Your task to perform on an android device: Open Google Chrome and click the shortcut for Amazon.com Image 0: 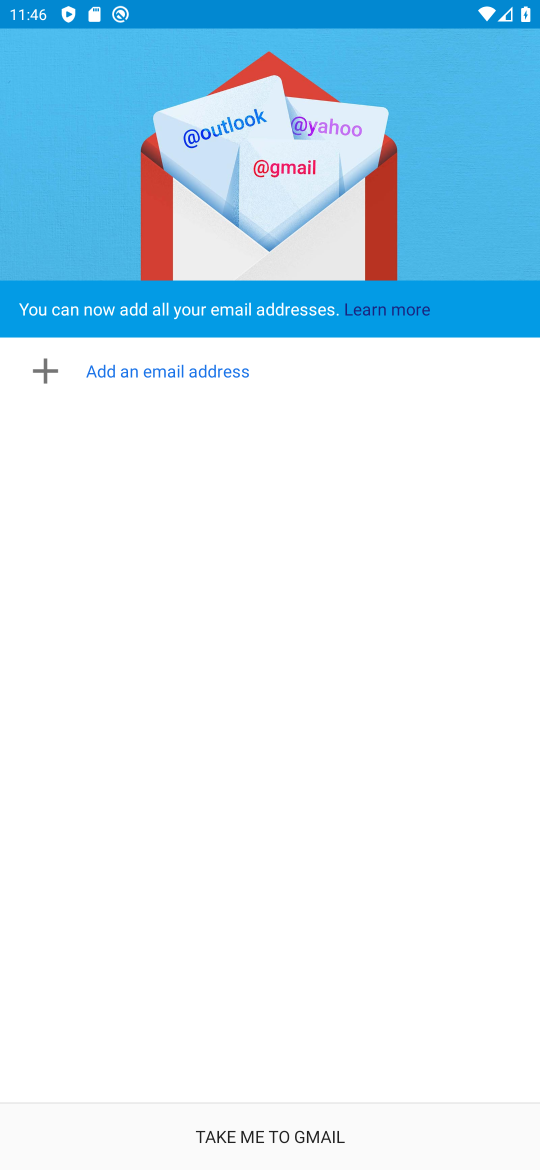
Step 0: press home button
Your task to perform on an android device: Open Google Chrome and click the shortcut for Amazon.com Image 1: 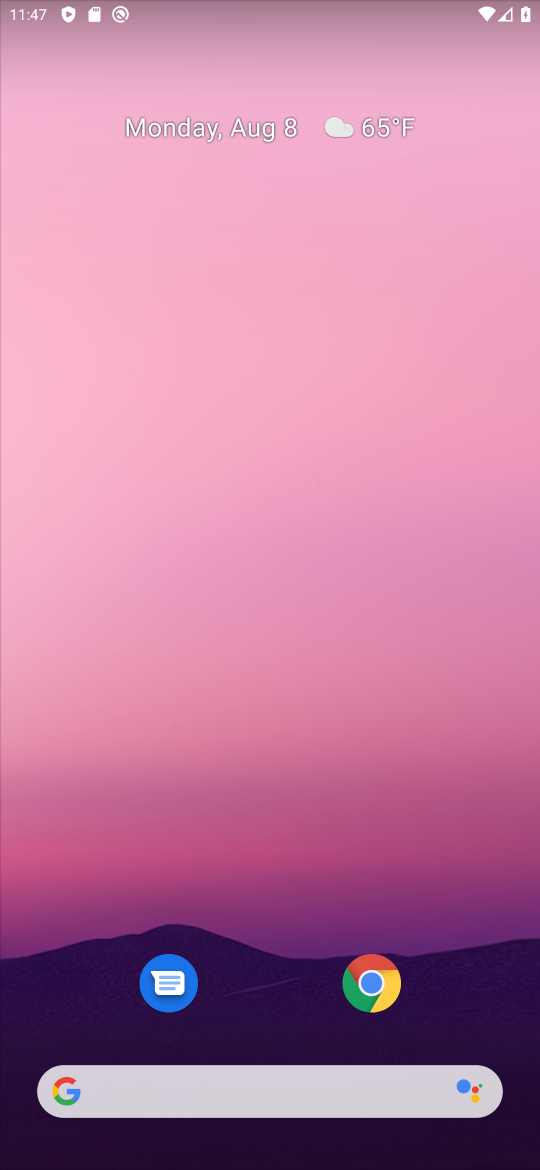
Step 1: click (366, 963)
Your task to perform on an android device: Open Google Chrome and click the shortcut for Amazon.com Image 2: 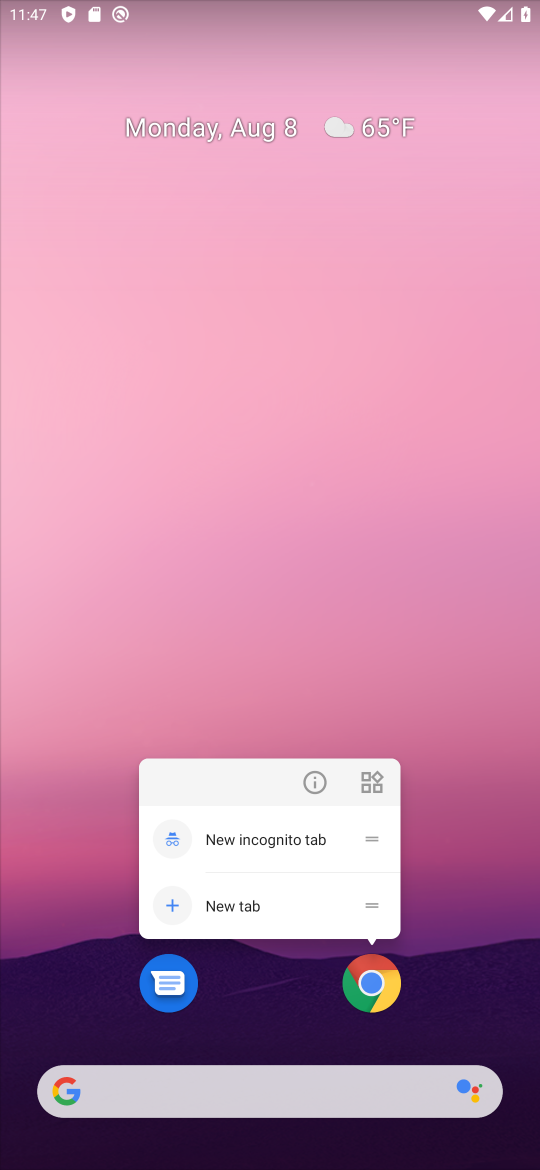
Step 2: click (366, 963)
Your task to perform on an android device: Open Google Chrome and click the shortcut for Amazon.com Image 3: 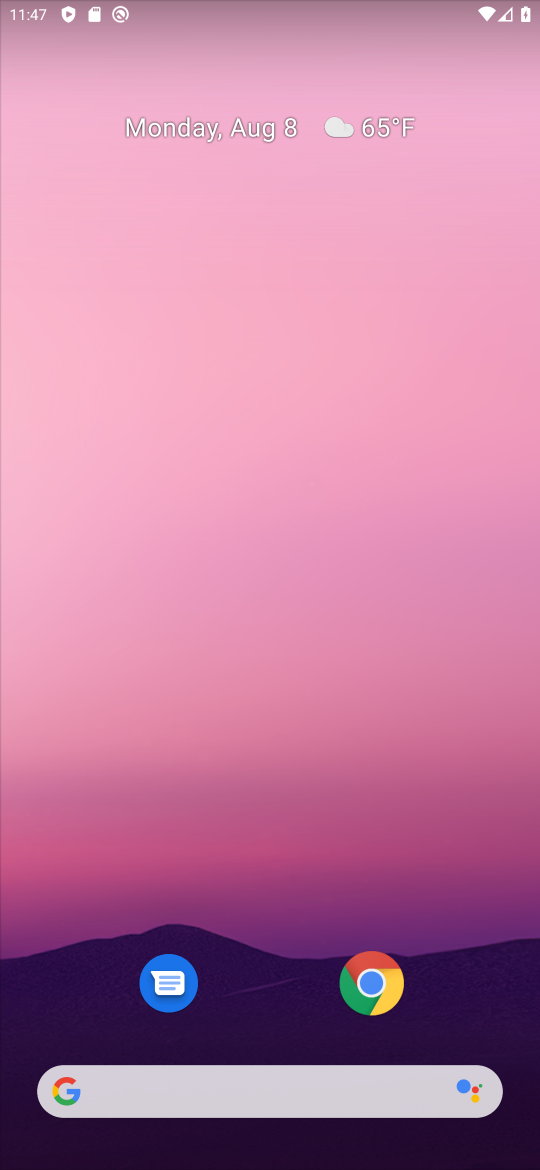
Step 3: click (366, 990)
Your task to perform on an android device: Open Google Chrome and click the shortcut for Amazon.com Image 4: 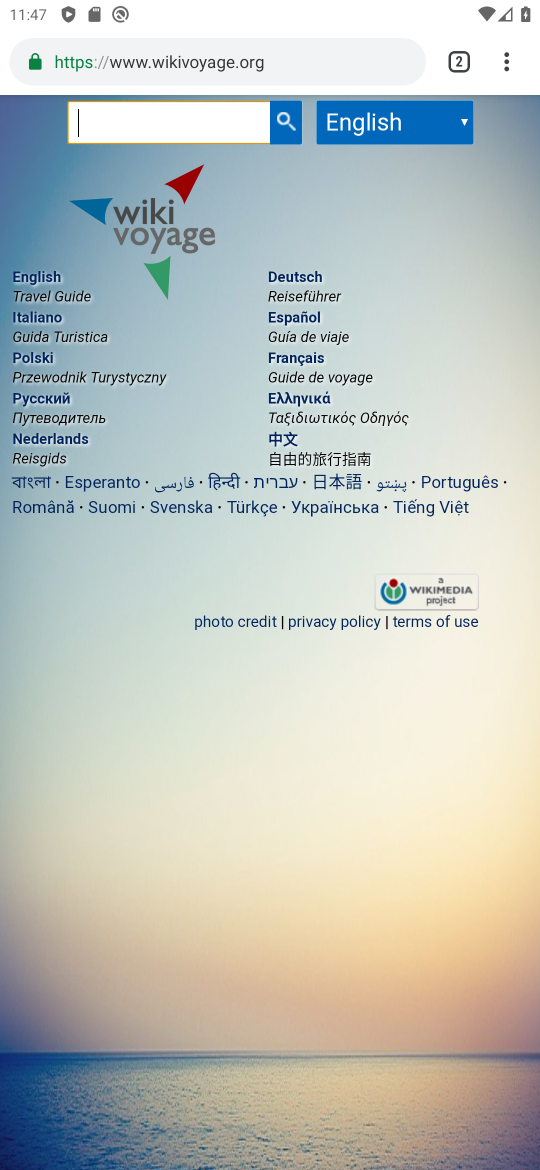
Step 4: click (501, 66)
Your task to perform on an android device: Open Google Chrome and click the shortcut for Amazon.com Image 5: 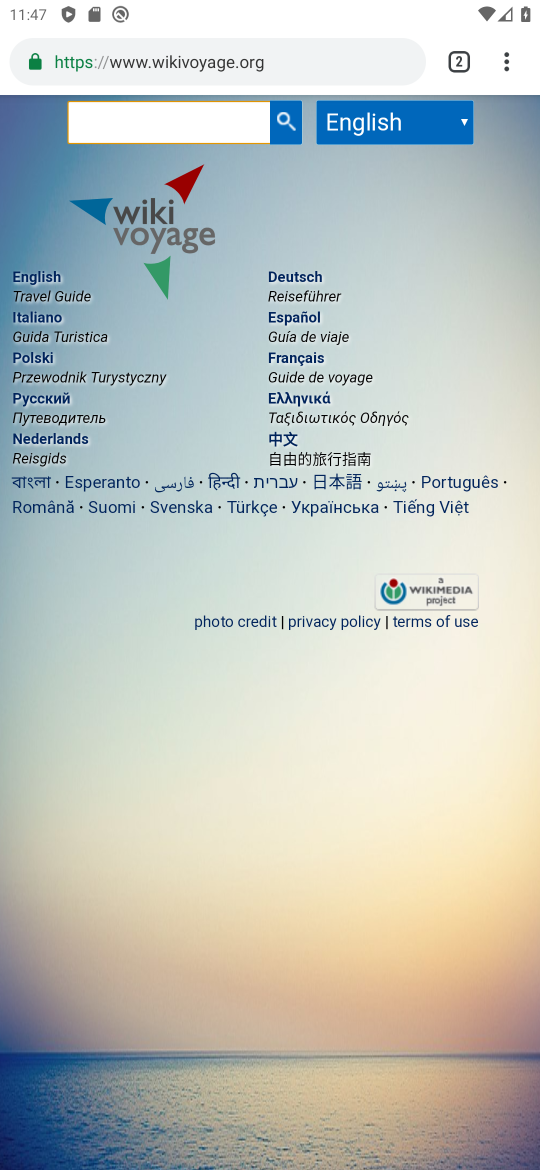
Step 5: click (455, 54)
Your task to perform on an android device: Open Google Chrome and click the shortcut for Amazon.com Image 6: 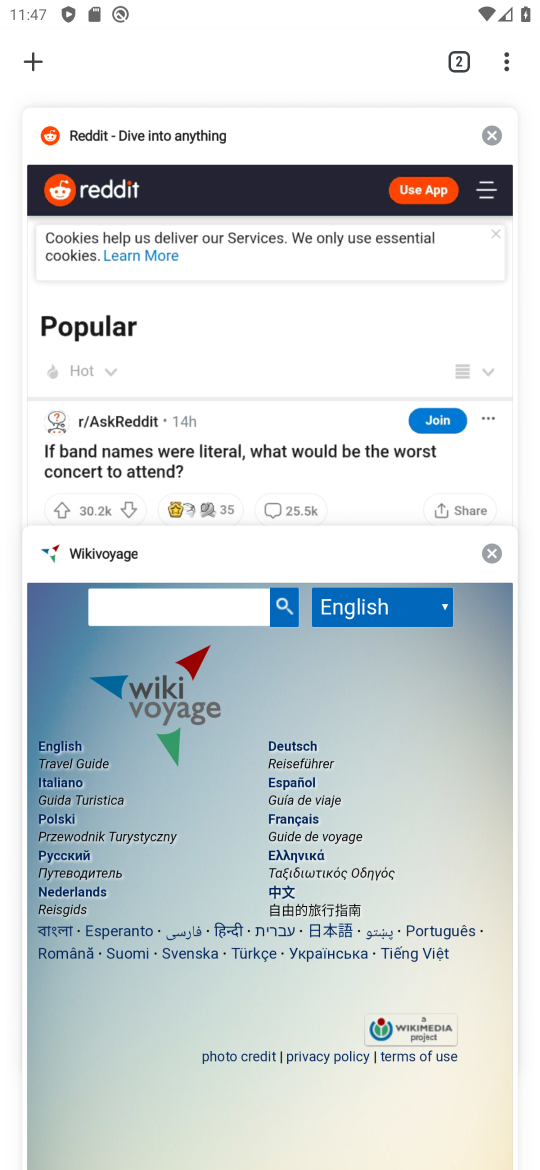
Step 6: click (27, 70)
Your task to perform on an android device: Open Google Chrome and click the shortcut for Amazon.com Image 7: 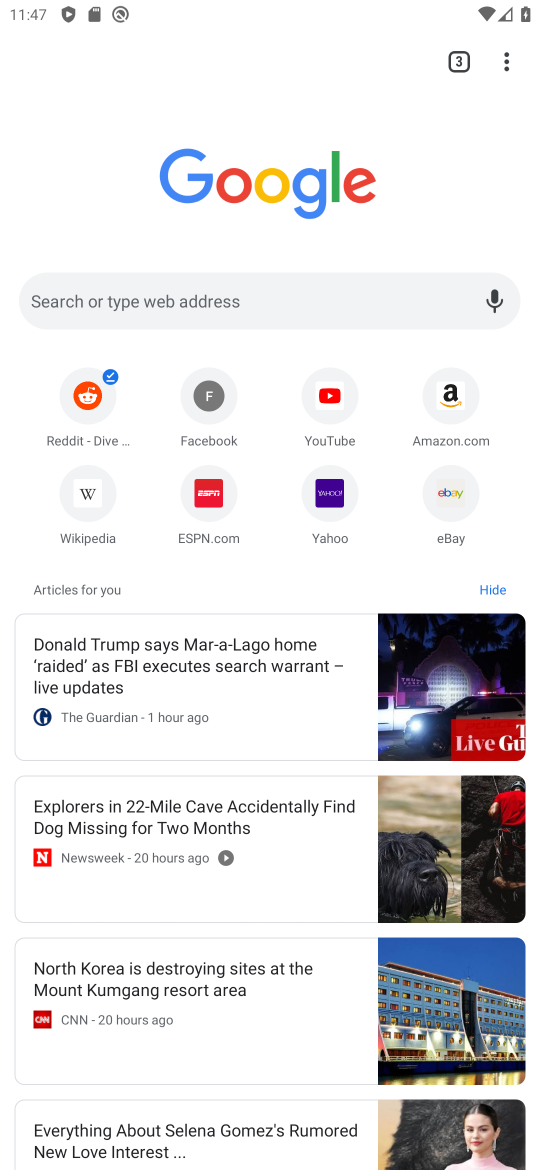
Step 7: click (449, 424)
Your task to perform on an android device: Open Google Chrome and click the shortcut for Amazon.com Image 8: 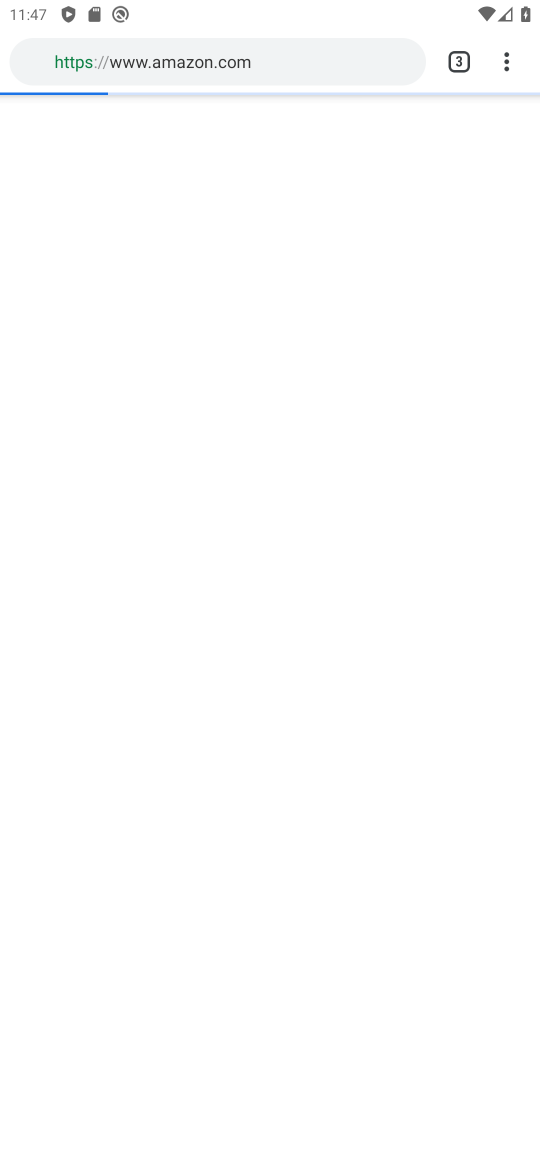
Step 8: task complete